Your task to perform on an android device: toggle location history Image 0: 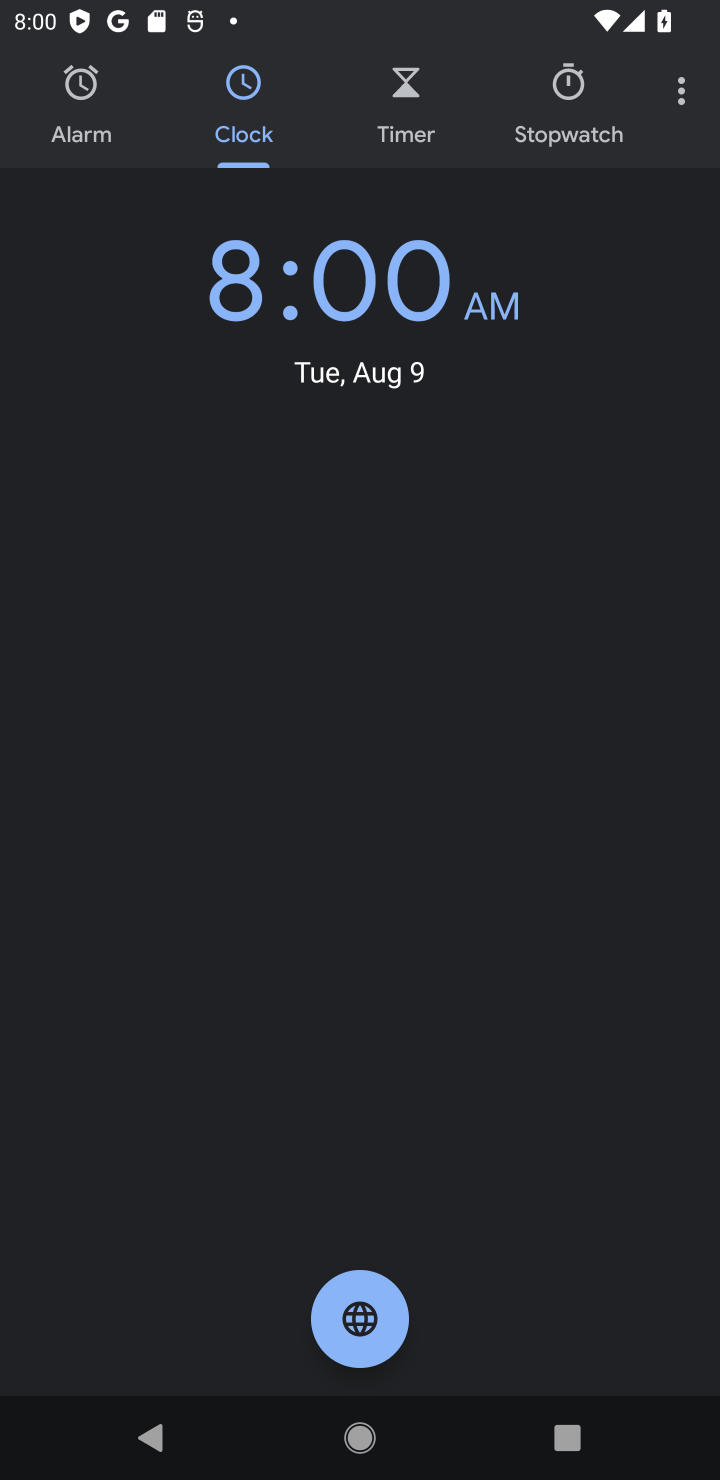
Step 0: drag from (209, 10) to (174, 1186)
Your task to perform on an android device: toggle location history Image 1: 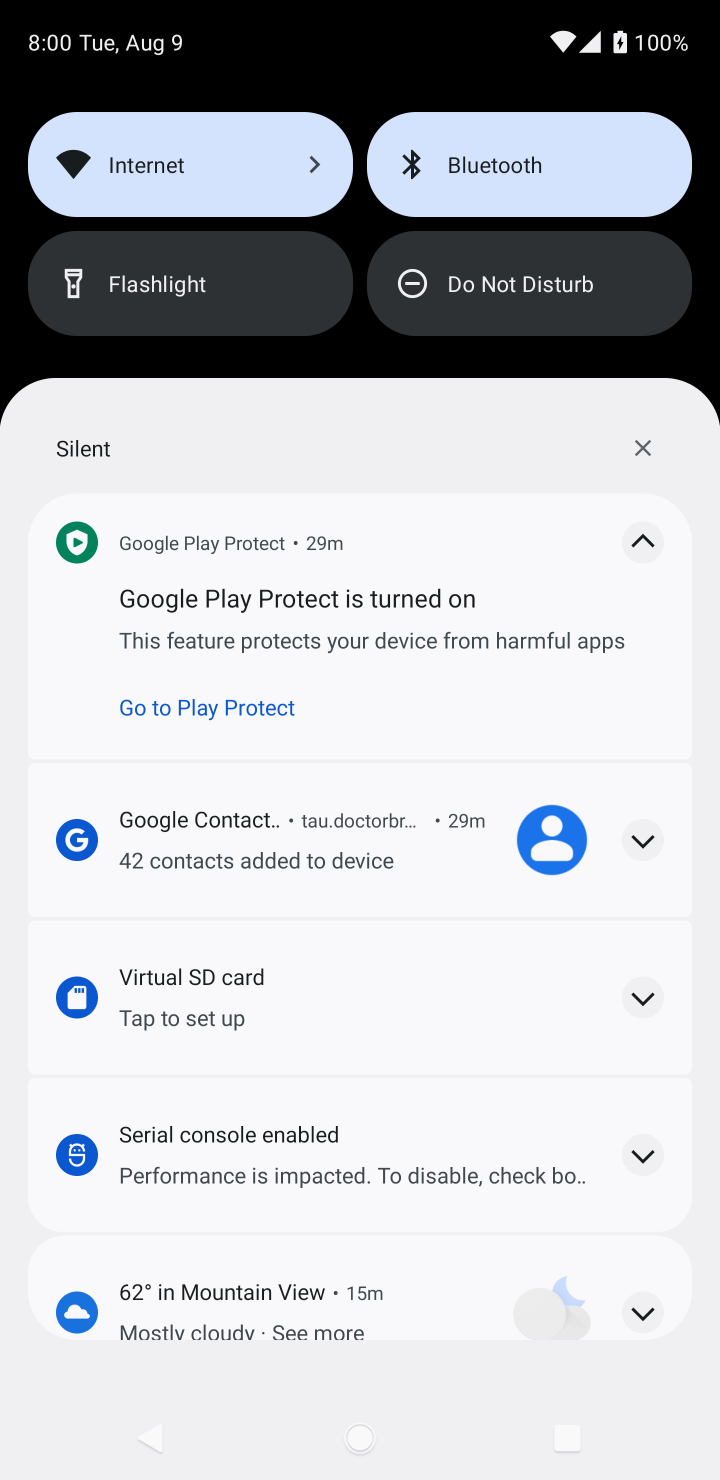
Step 1: click (264, 175)
Your task to perform on an android device: toggle location history Image 2: 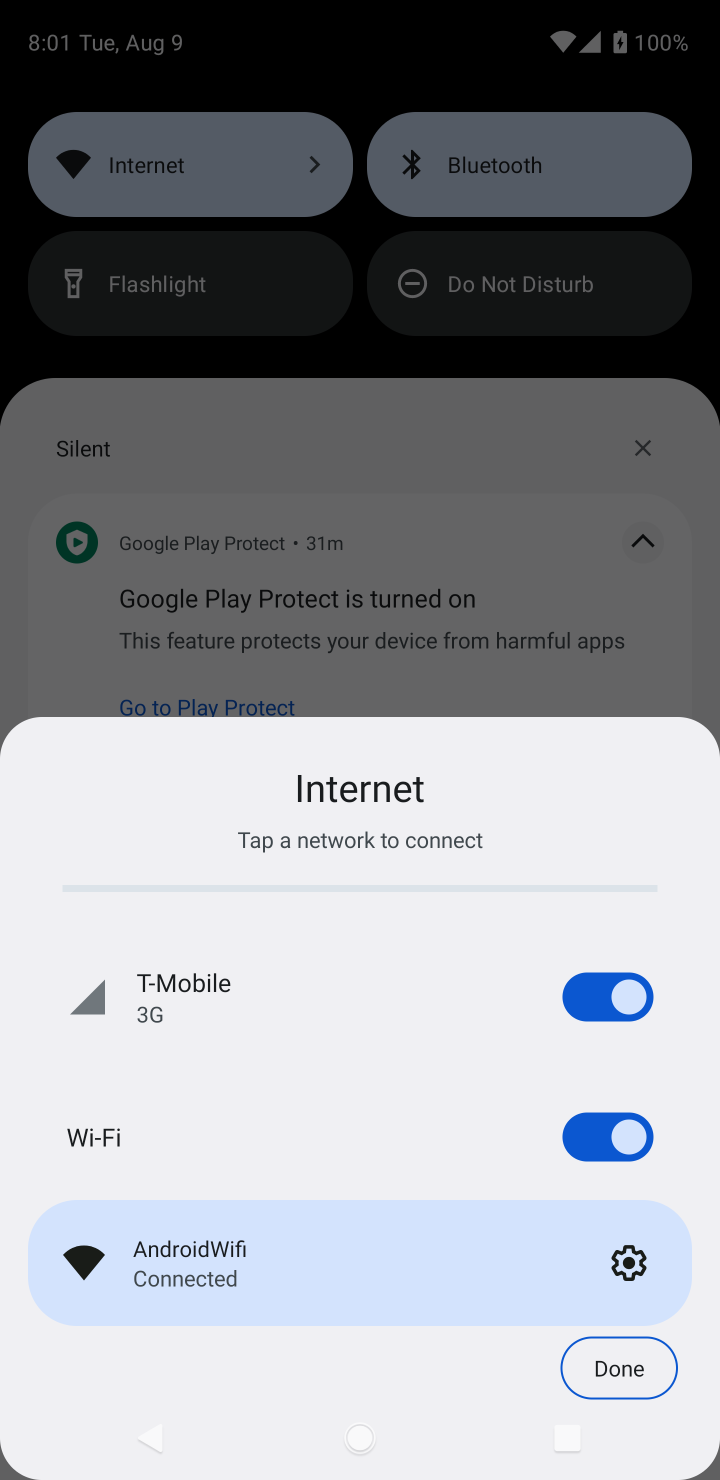
Step 2: click (630, 1269)
Your task to perform on an android device: toggle location history Image 3: 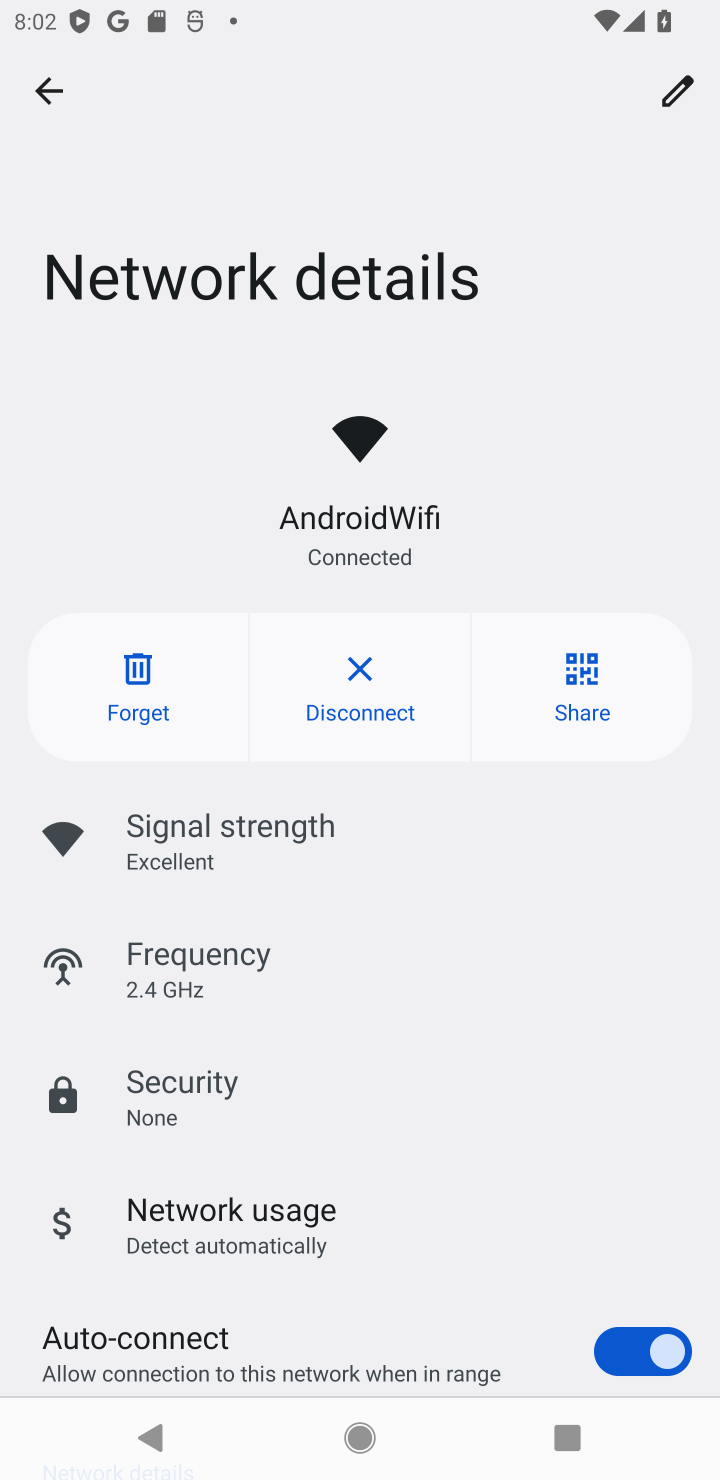
Step 3: click (361, 1441)
Your task to perform on an android device: toggle location history Image 4: 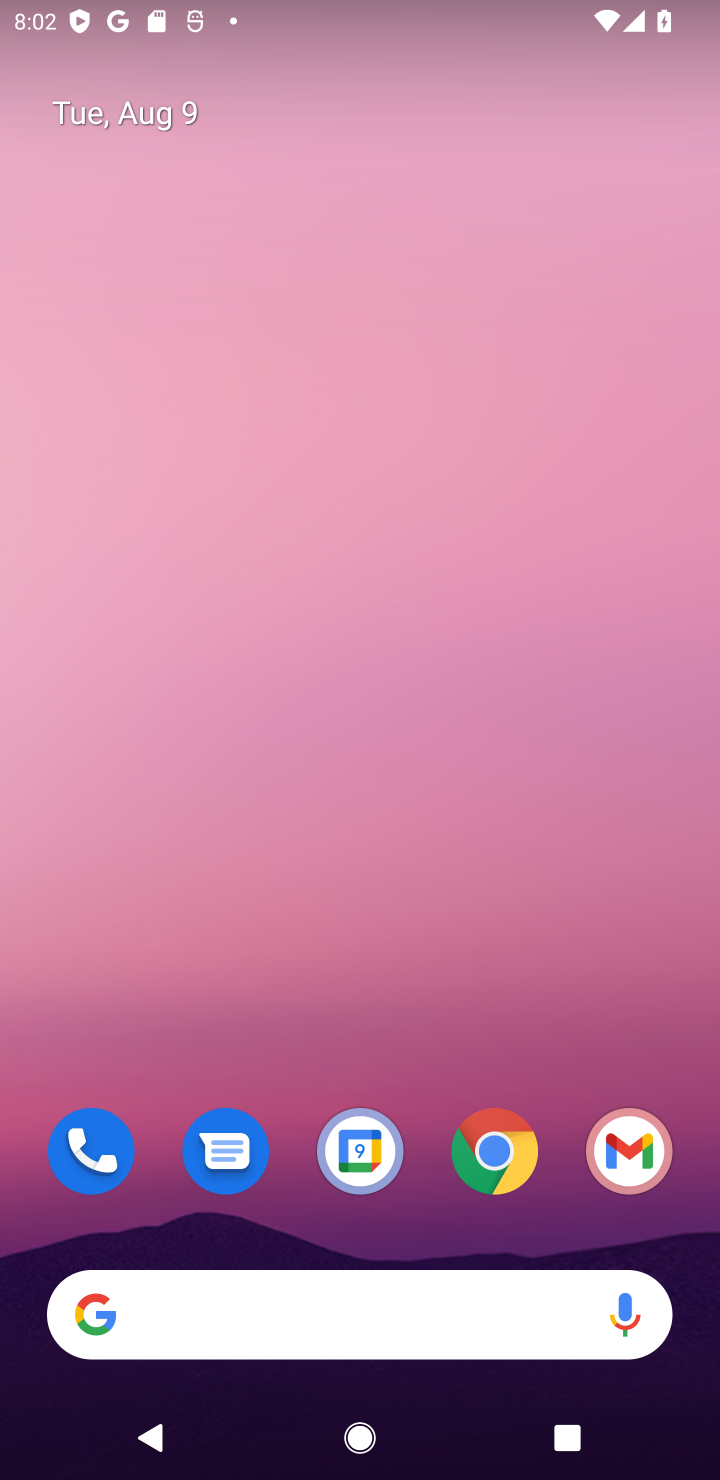
Step 4: drag from (292, 1196) to (239, 381)
Your task to perform on an android device: toggle location history Image 5: 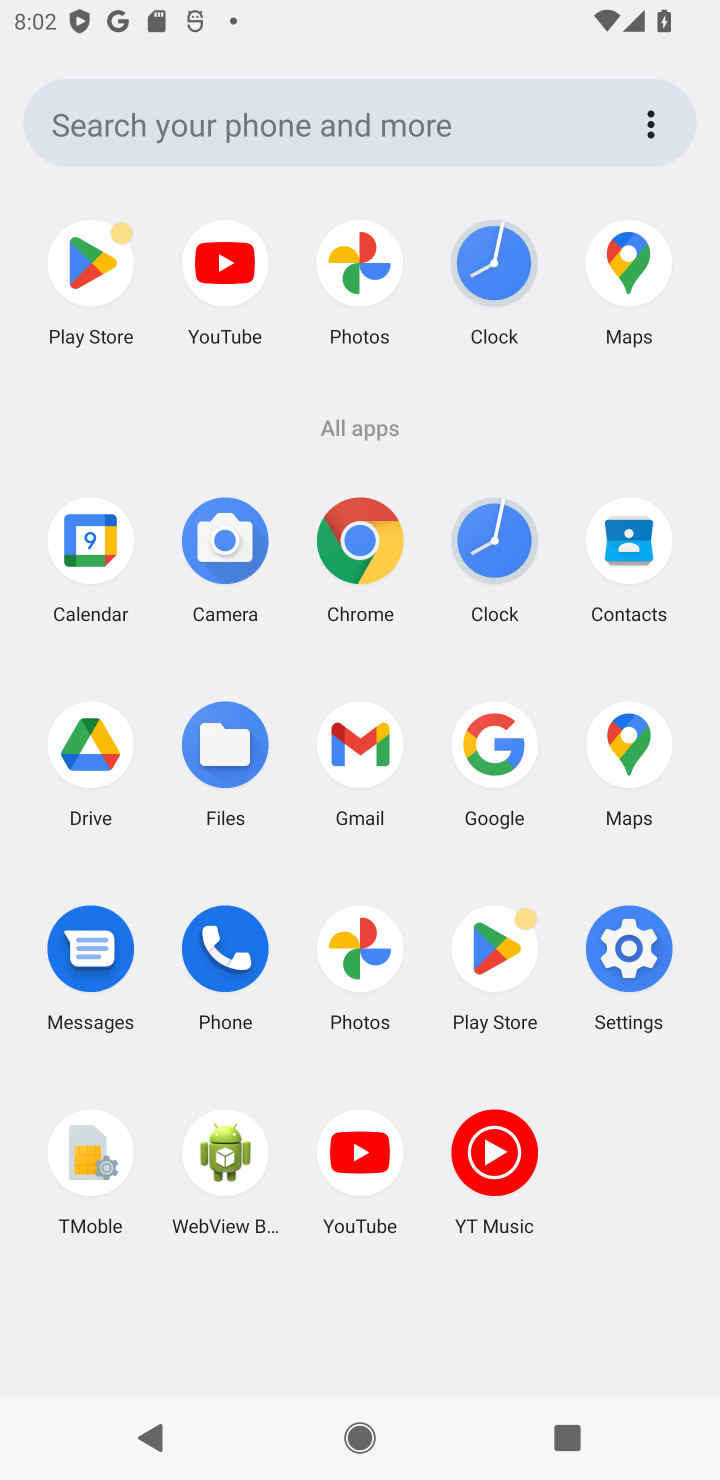
Step 5: click (622, 948)
Your task to perform on an android device: toggle location history Image 6: 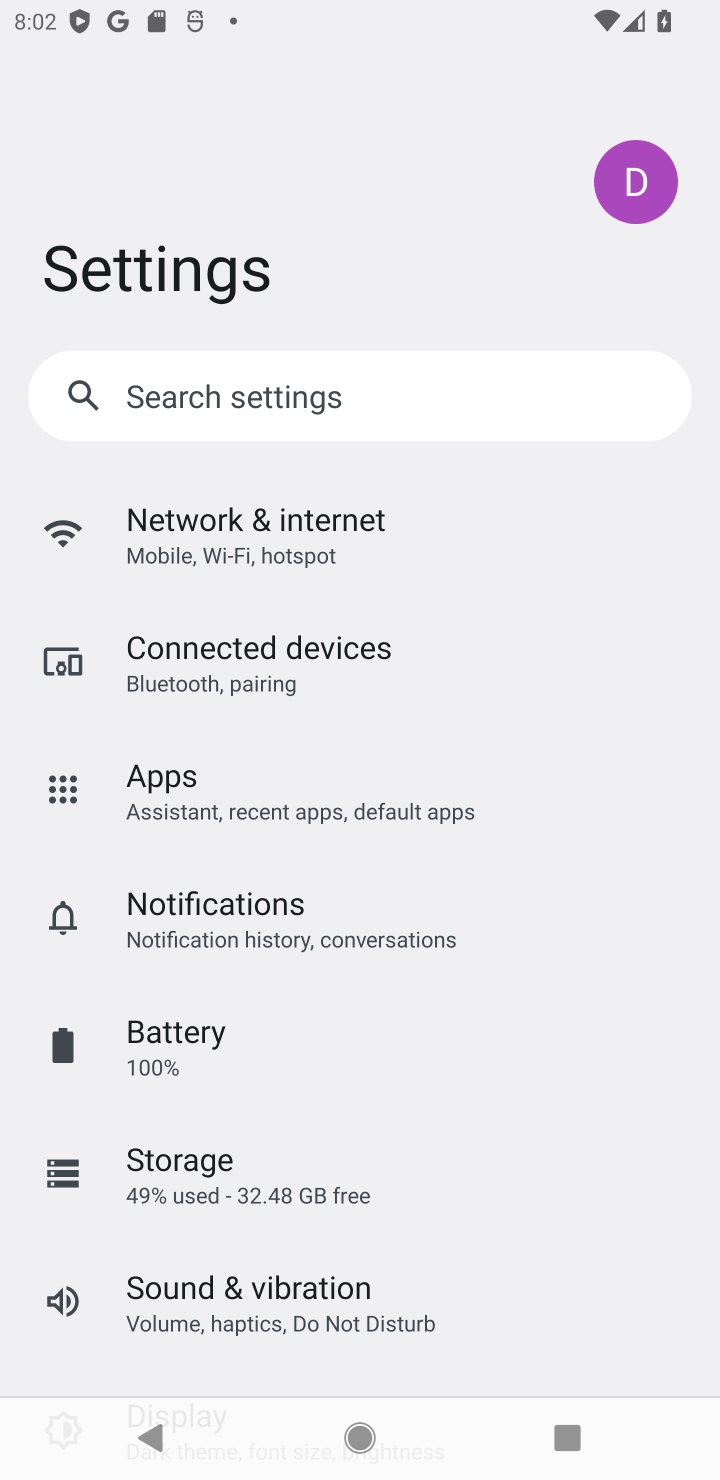
Step 6: drag from (437, 1176) to (342, 357)
Your task to perform on an android device: toggle location history Image 7: 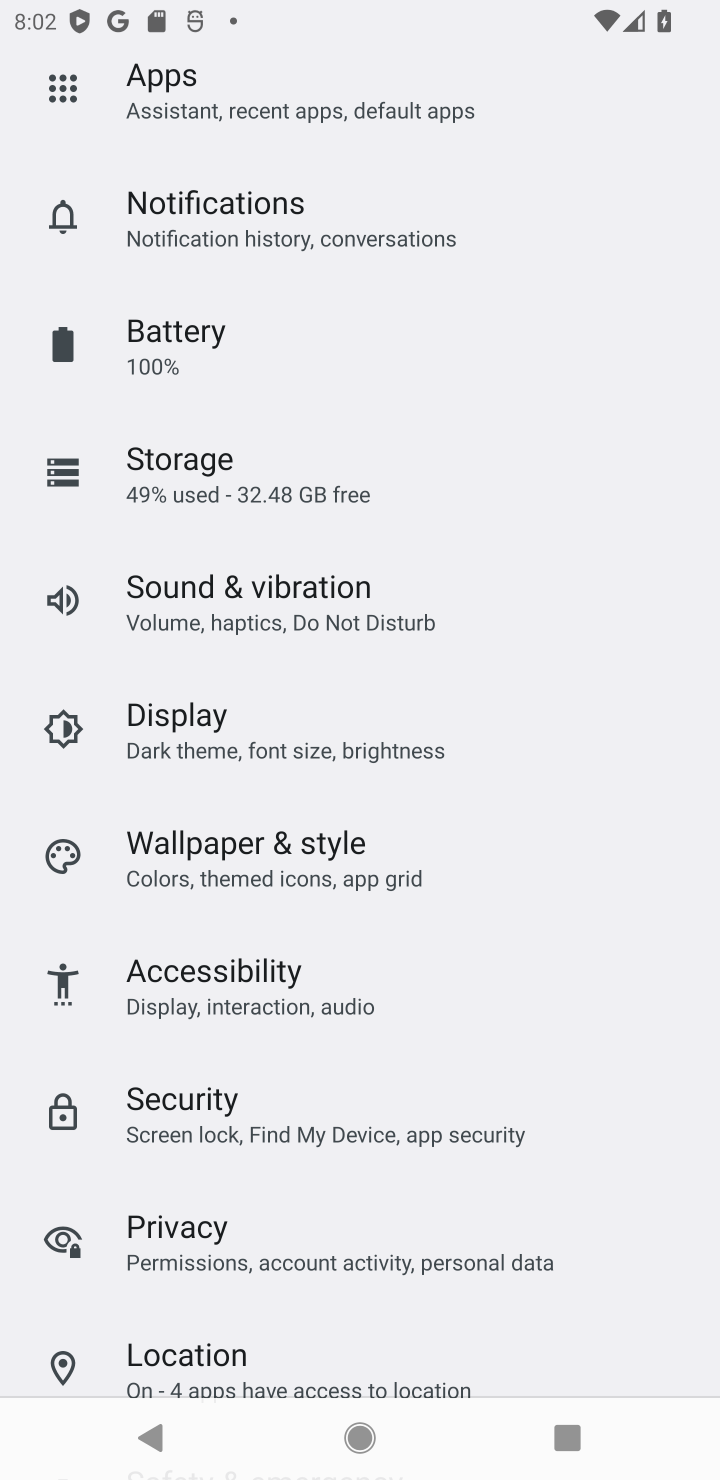
Step 7: click (199, 1360)
Your task to perform on an android device: toggle location history Image 8: 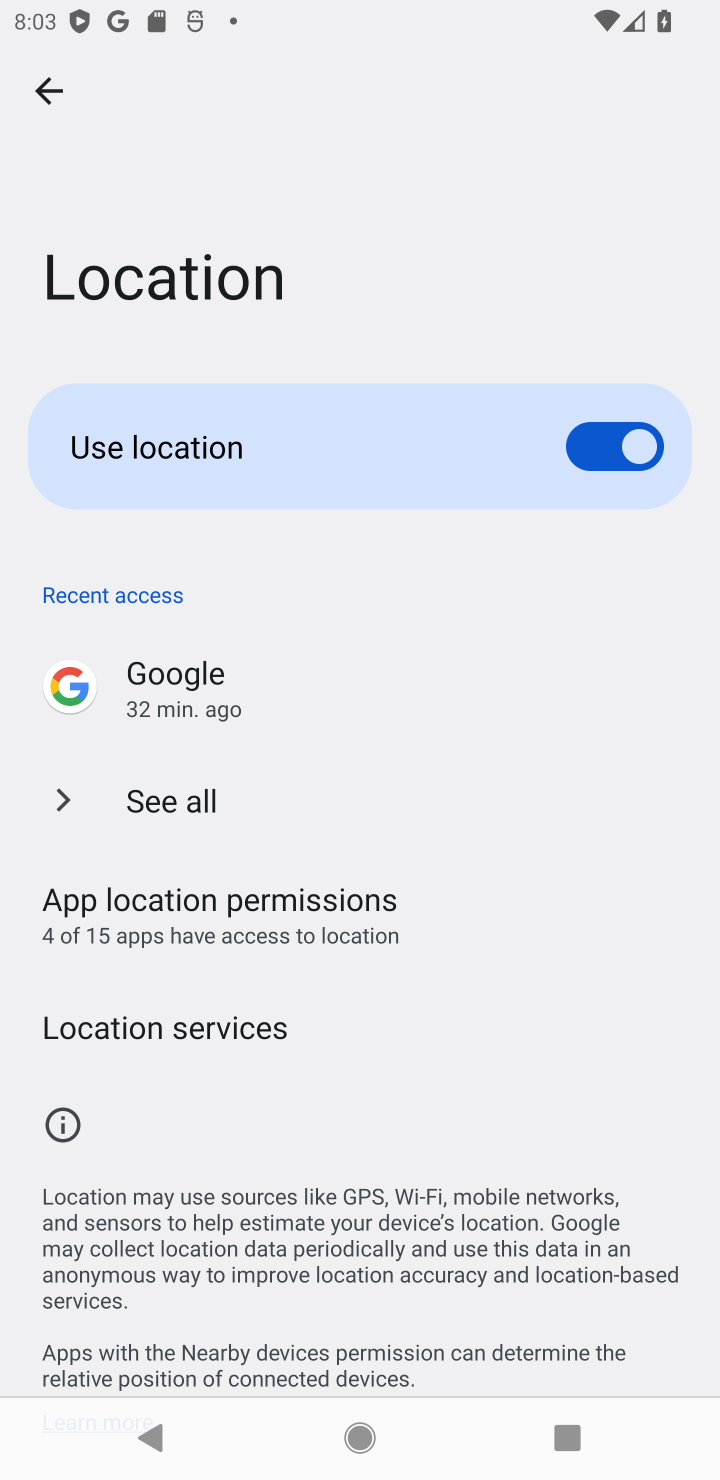
Step 8: click (603, 443)
Your task to perform on an android device: toggle location history Image 9: 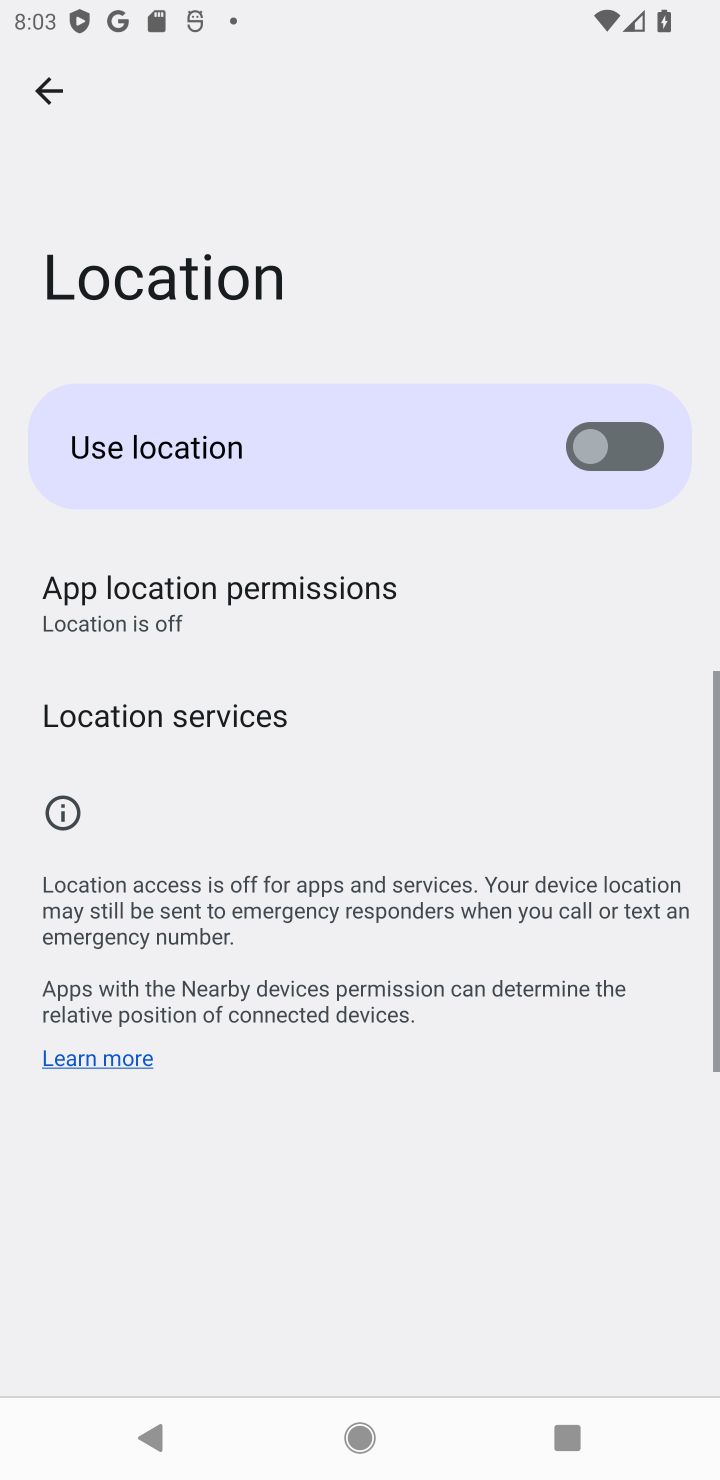
Step 9: click (603, 443)
Your task to perform on an android device: toggle location history Image 10: 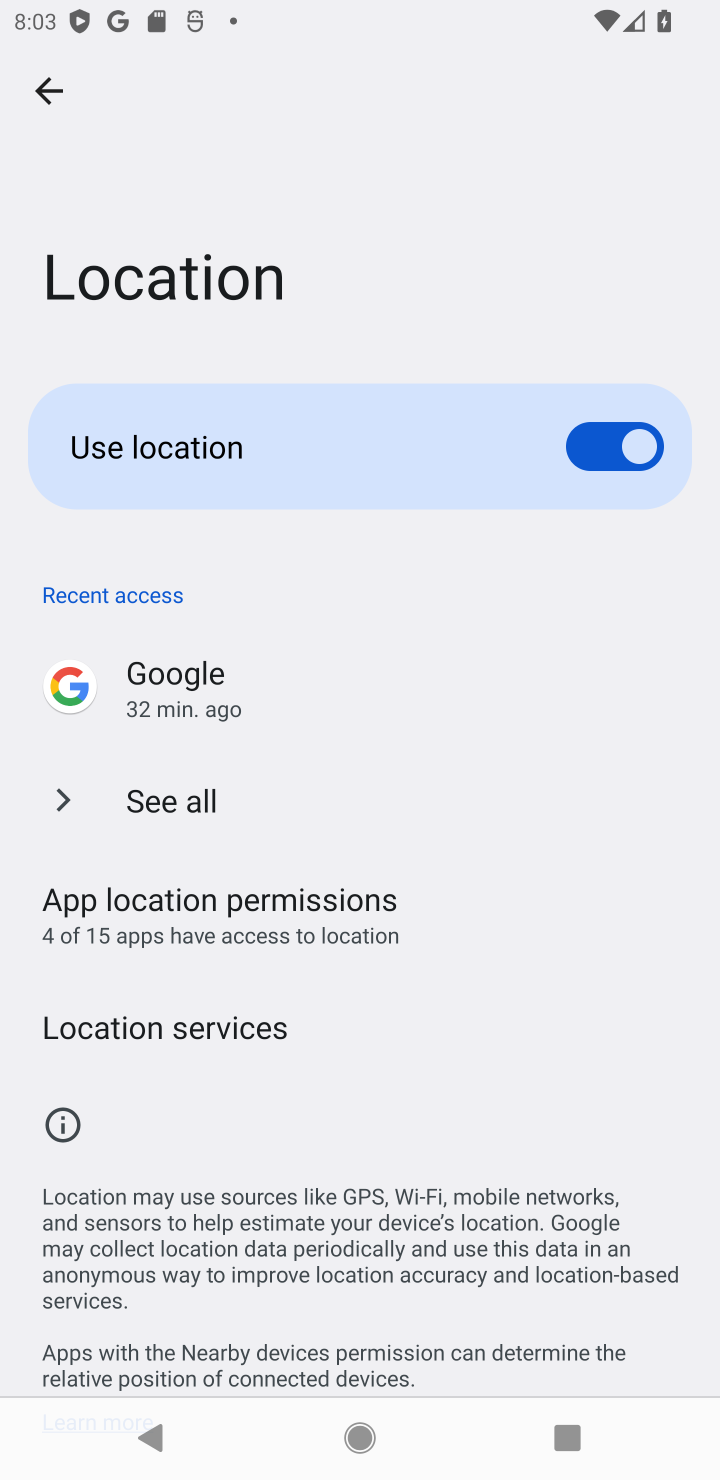
Step 10: click (184, 1039)
Your task to perform on an android device: toggle location history Image 11: 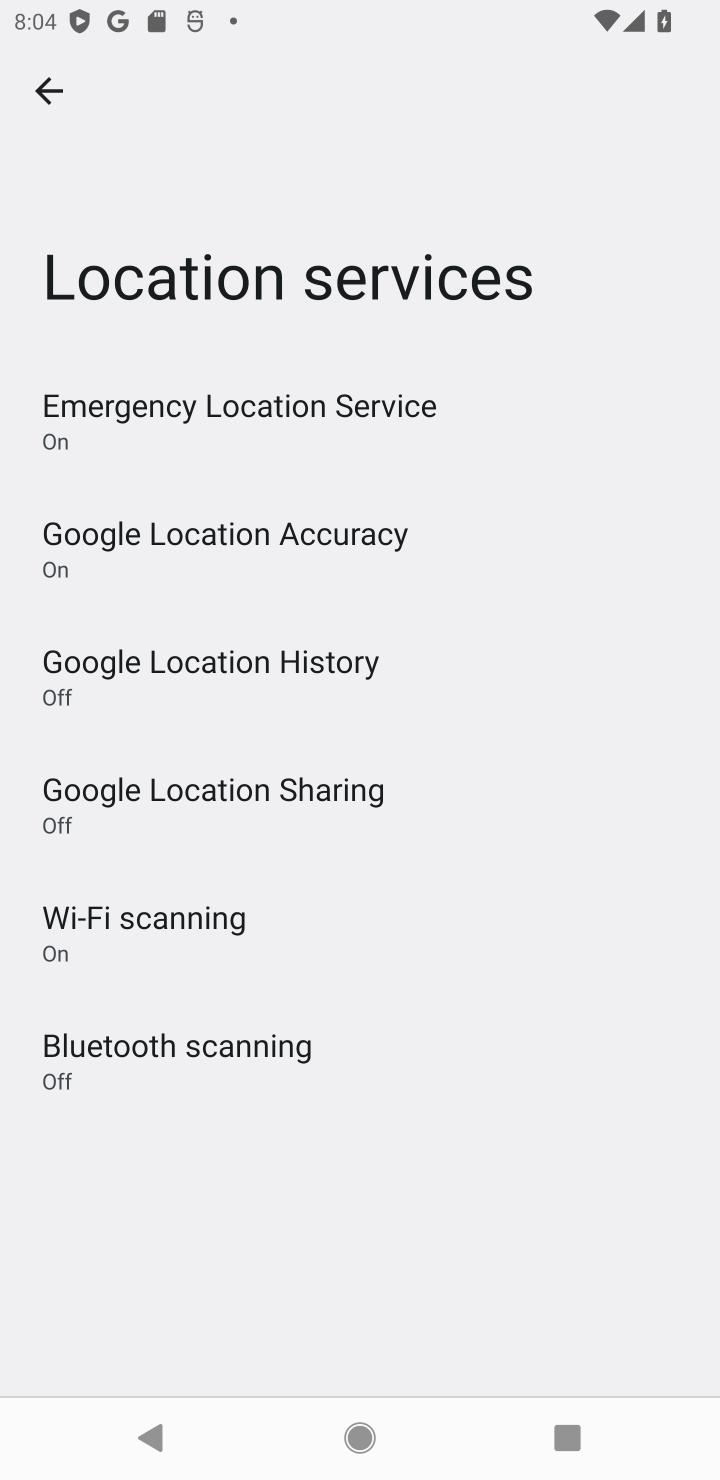
Step 11: click (289, 659)
Your task to perform on an android device: toggle location history Image 12: 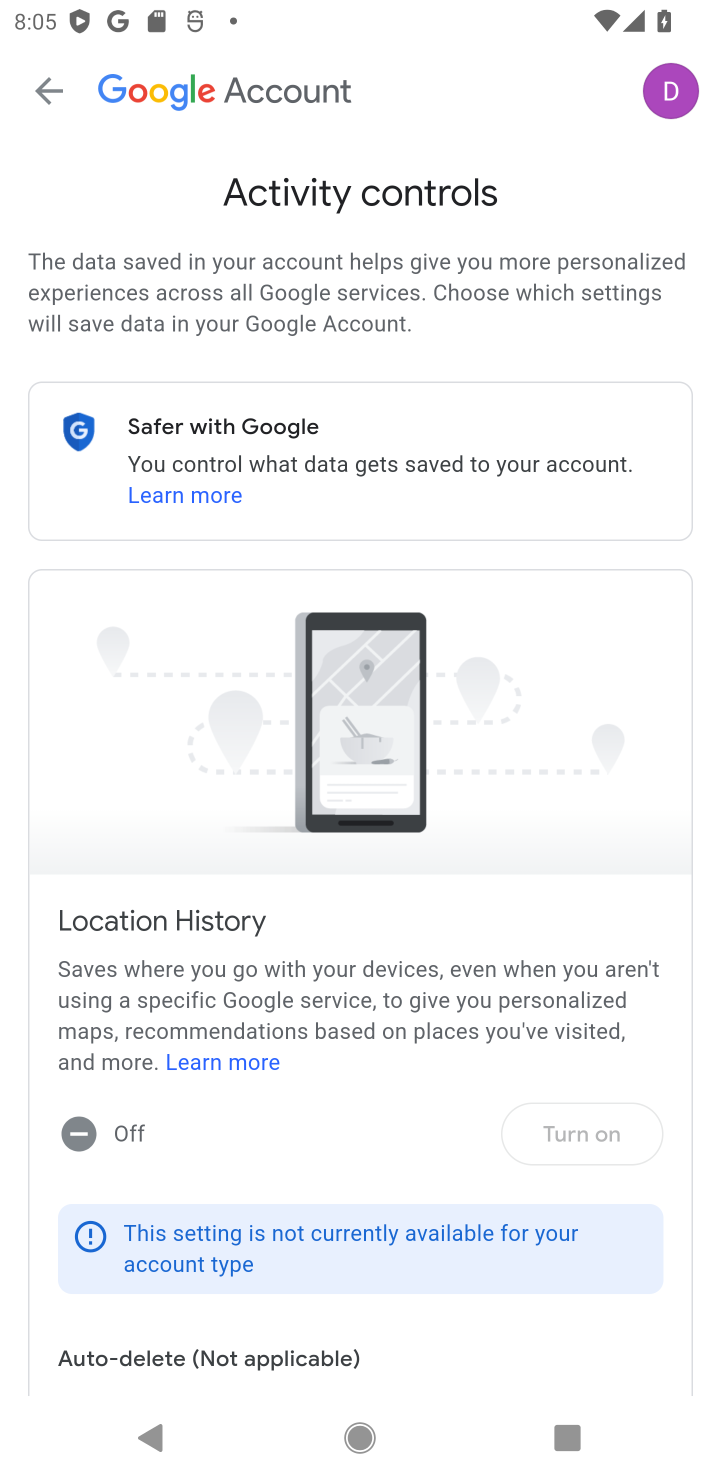
Step 12: task complete